Your task to perform on an android device: Open Google Chrome and open the bookmarks view Image 0: 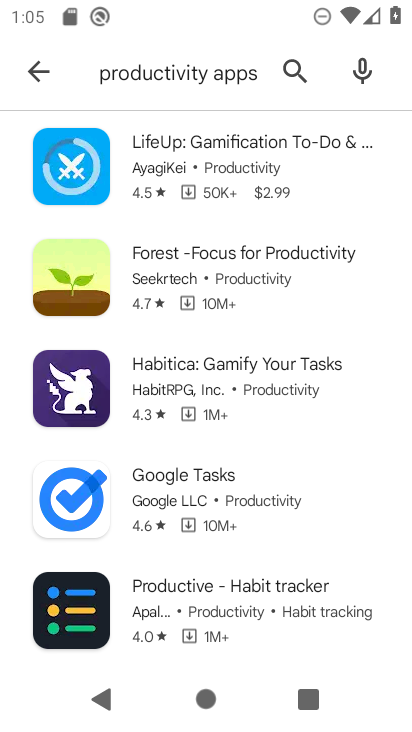
Step 0: press home button
Your task to perform on an android device: Open Google Chrome and open the bookmarks view Image 1: 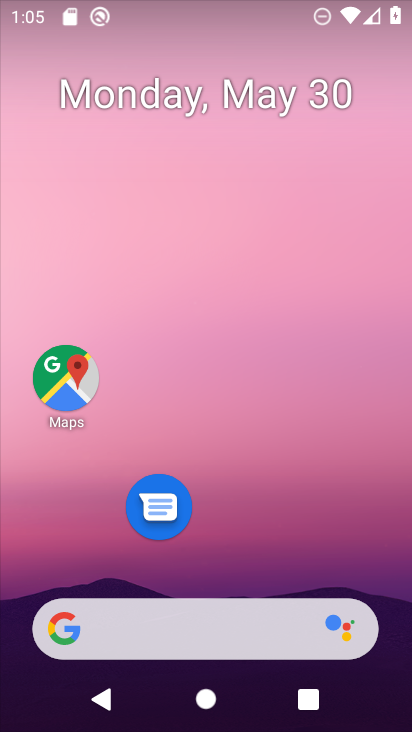
Step 1: drag from (264, 549) to (313, 175)
Your task to perform on an android device: Open Google Chrome and open the bookmarks view Image 2: 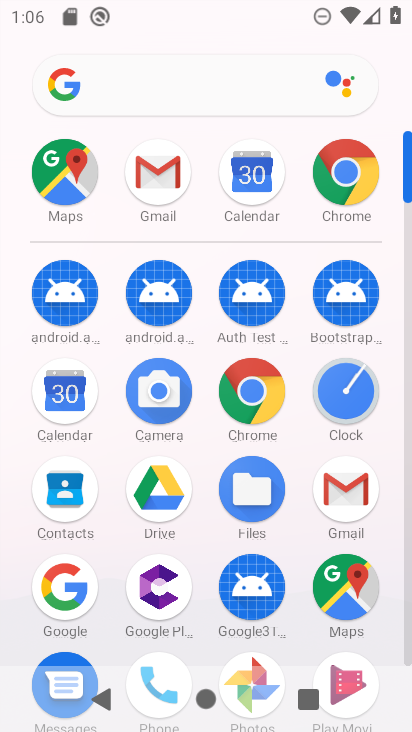
Step 2: click (236, 385)
Your task to perform on an android device: Open Google Chrome and open the bookmarks view Image 3: 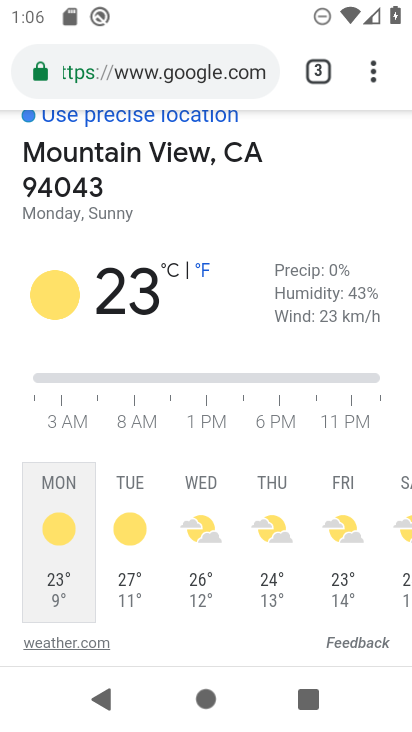
Step 3: task complete